Your task to perform on an android device: Open the calendar app, open the side menu, and click the "Day" option Image 0: 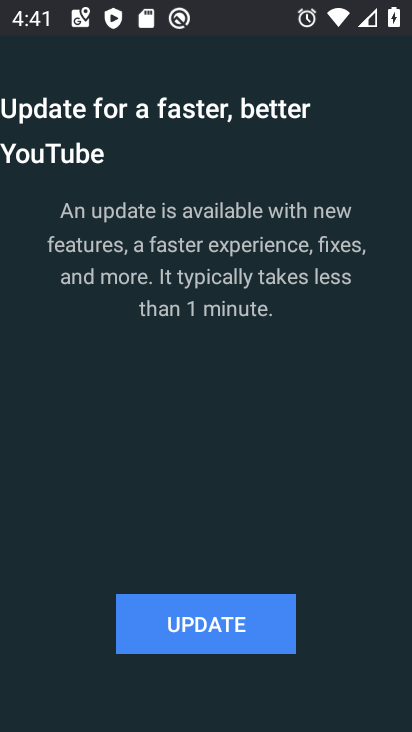
Step 0: press home button
Your task to perform on an android device: Open the calendar app, open the side menu, and click the "Day" option Image 1: 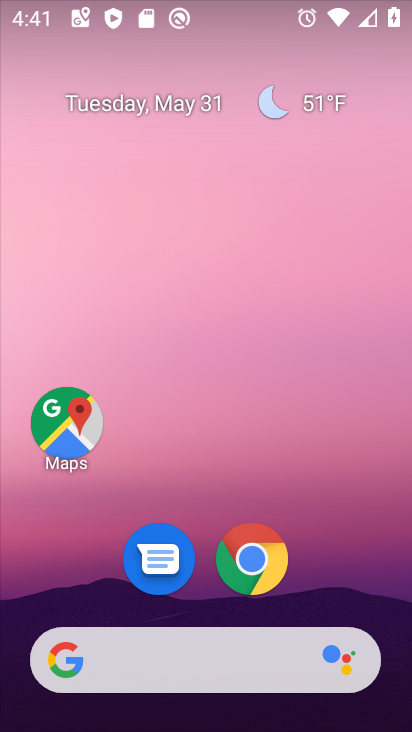
Step 1: drag from (326, 559) to (340, 42)
Your task to perform on an android device: Open the calendar app, open the side menu, and click the "Day" option Image 2: 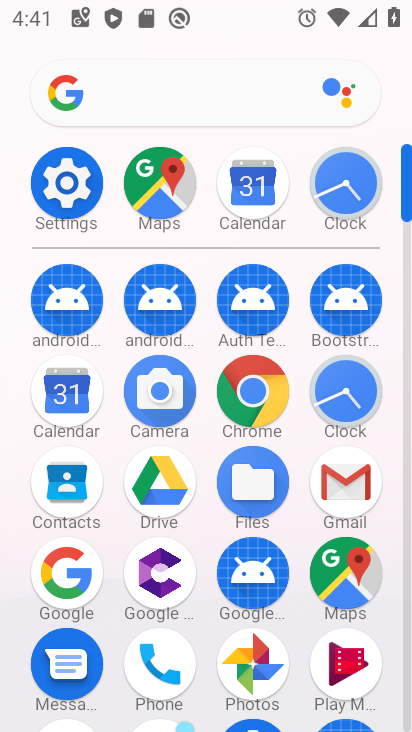
Step 2: click (64, 389)
Your task to perform on an android device: Open the calendar app, open the side menu, and click the "Day" option Image 3: 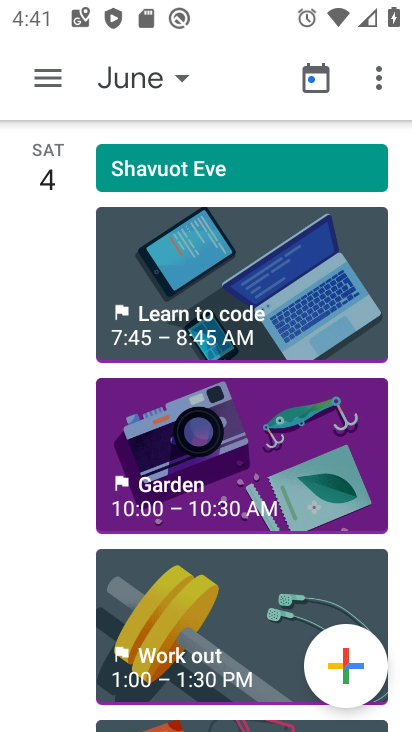
Step 3: click (39, 84)
Your task to perform on an android device: Open the calendar app, open the side menu, and click the "Day" option Image 4: 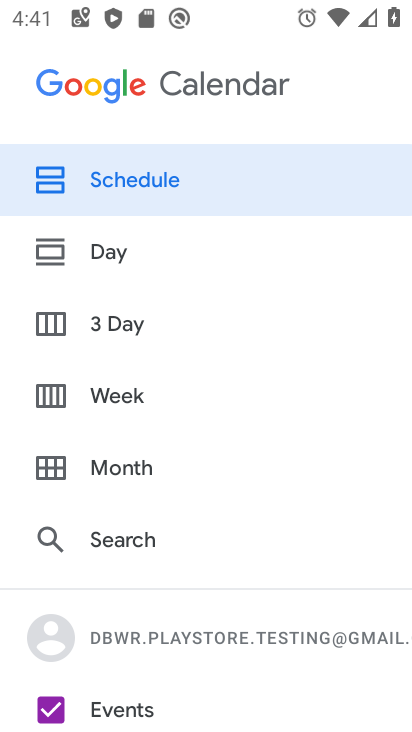
Step 4: click (101, 255)
Your task to perform on an android device: Open the calendar app, open the side menu, and click the "Day" option Image 5: 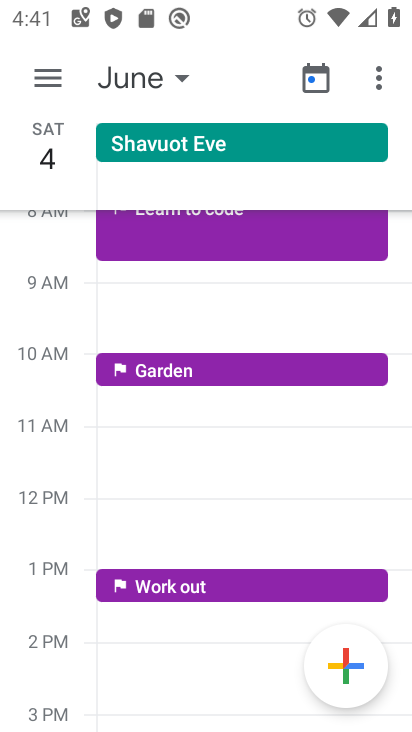
Step 5: task complete